Your task to perform on an android device: What's the news this weekend? Image 0: 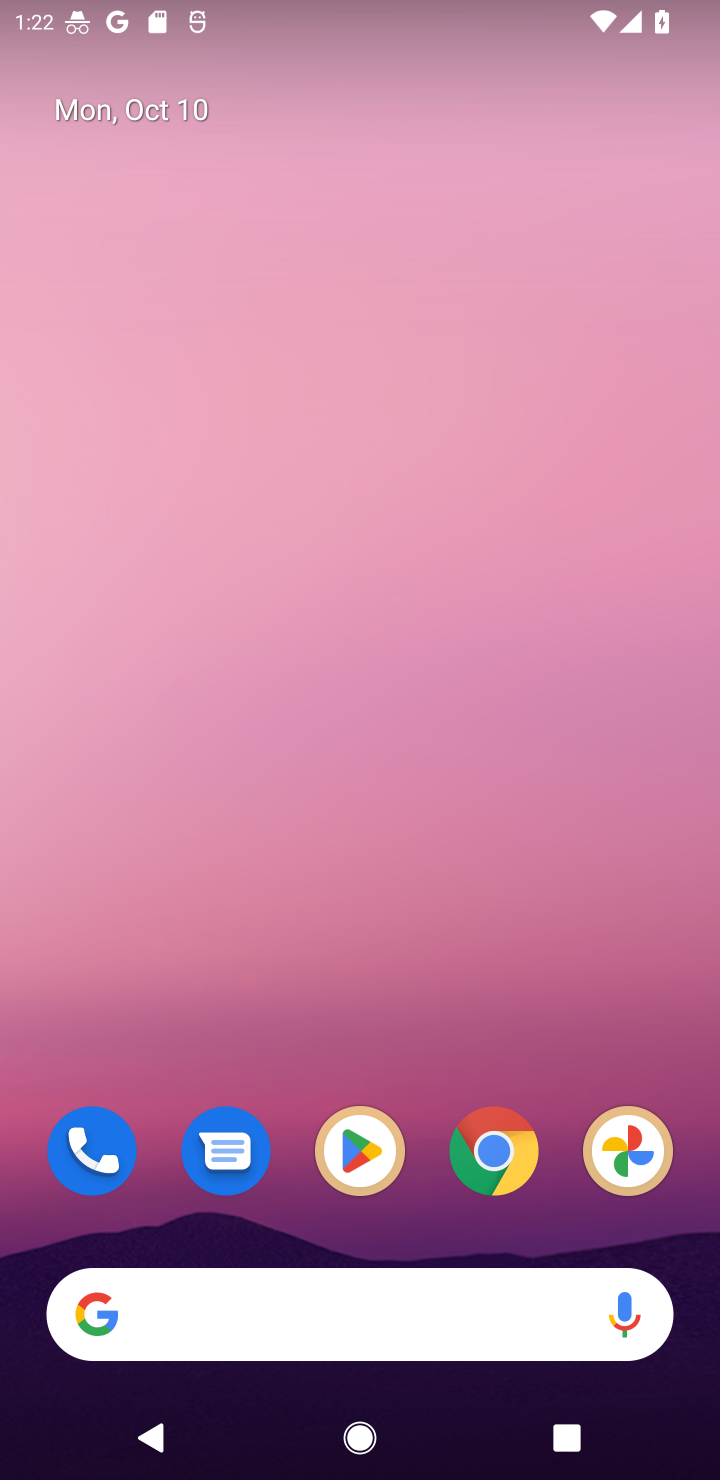
Step 0: click (384, 1349)
Your task to perform on an android device: What's the news this weekend? Image 1: 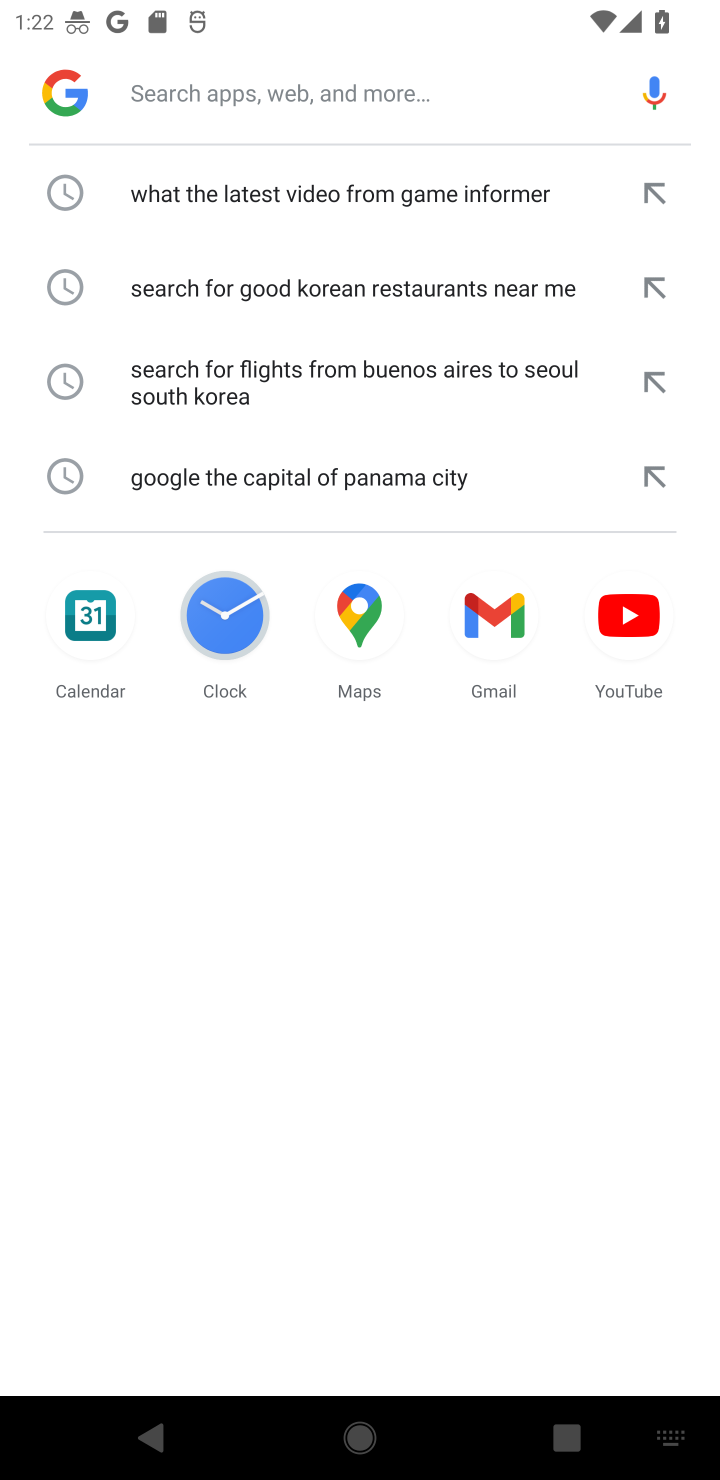
Step 1: type "What's the news this weekend?"
Your task to perform on an android device: What's the news this weekend? Image 2: 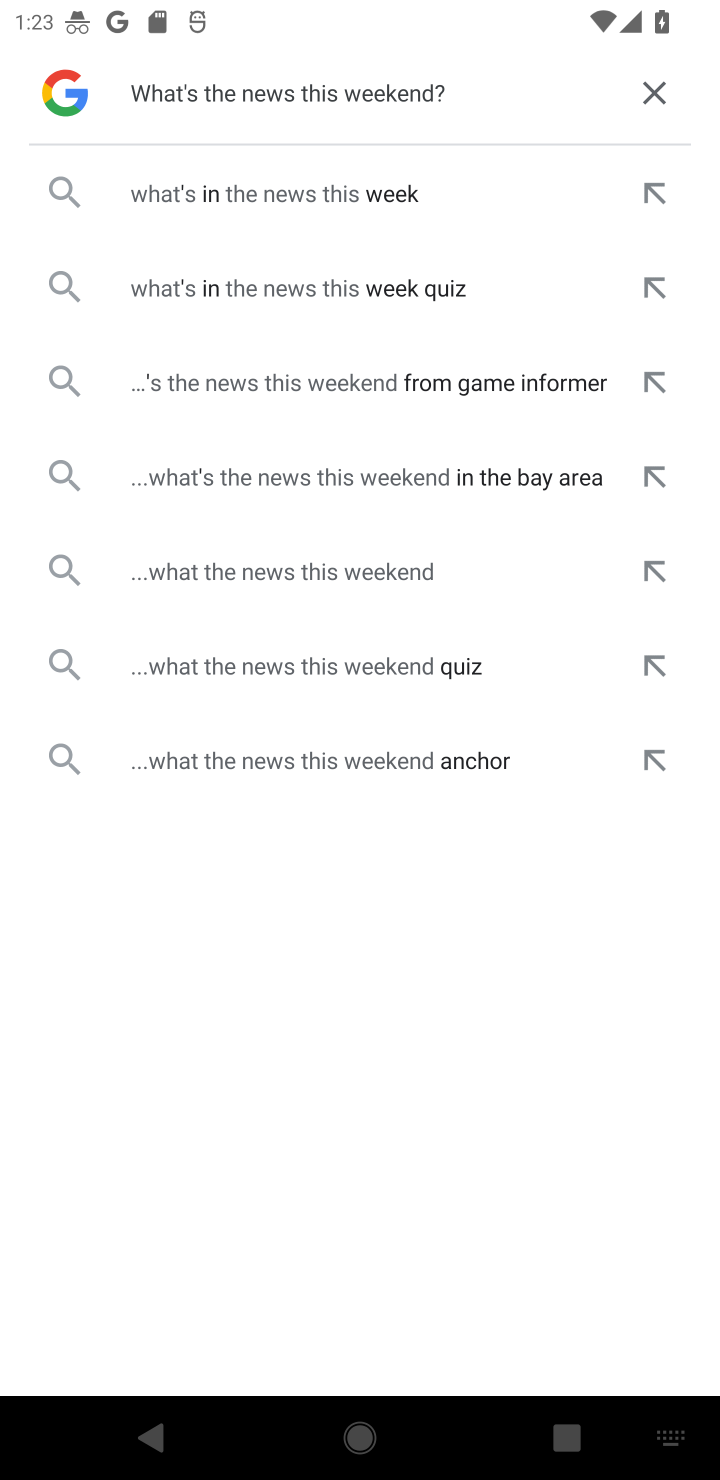
Step 2: click (248, 199)
Your task to perform on an android device: What's the news this weekend? Image 3: 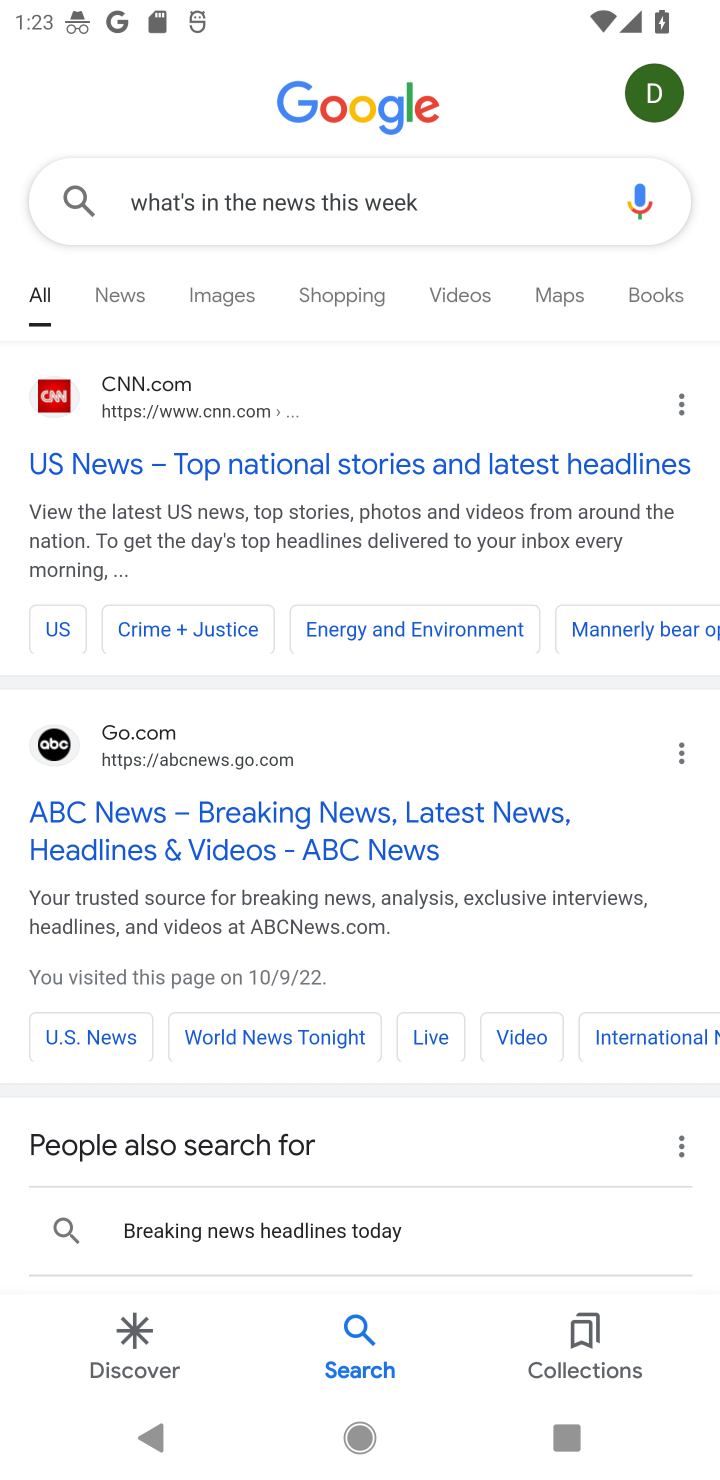
Step 3: click (292, 456)
Your task to perform on an android device: What's the news this weekend? Image 4: 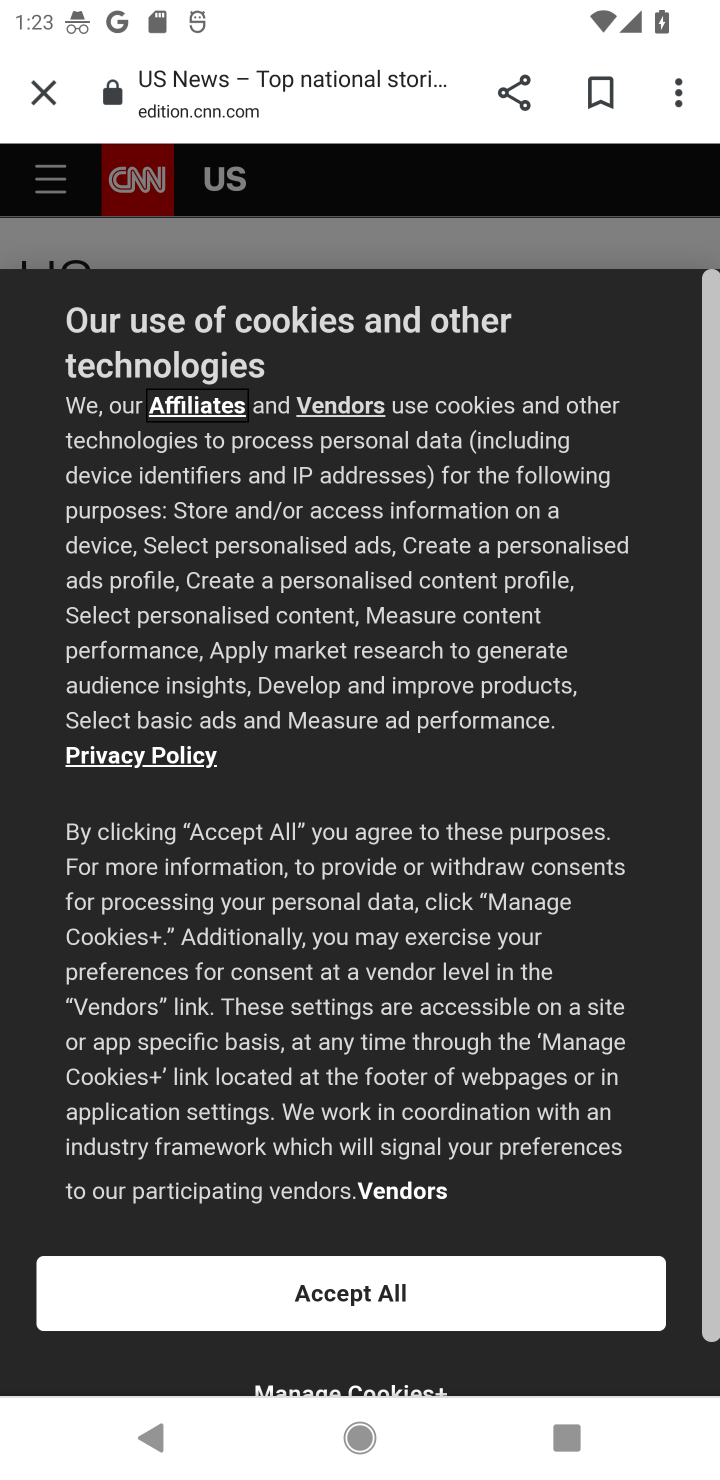
Step 4: click (374, 1306)
Your task to perform on an android device: What's the news this weekend? Image 5: 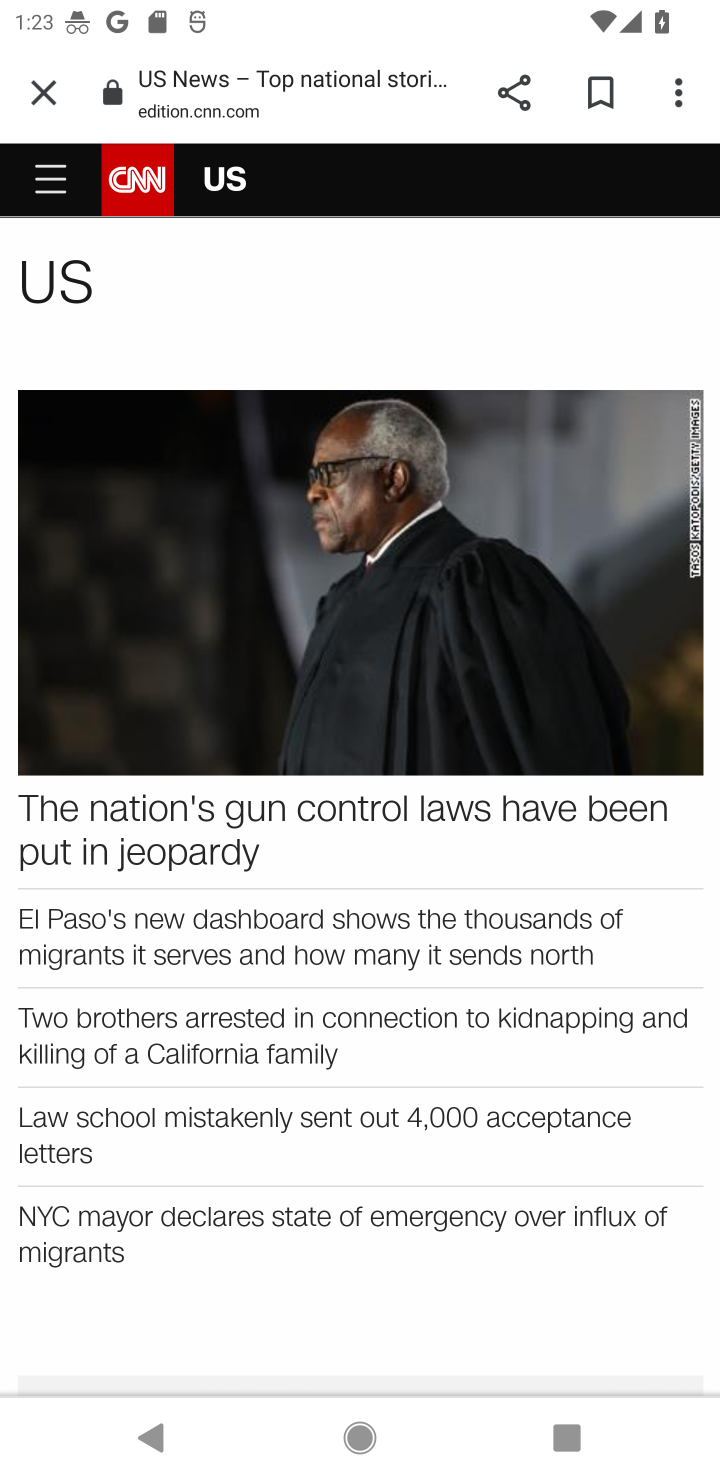
Step 5: task complete